Your task to perform on an android device: read, delete, or share a saved page in the chrome app Image 0: 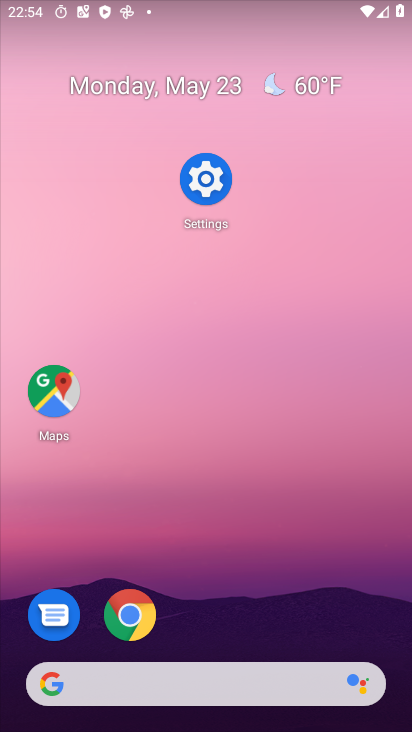
Step 0: drag from (270, 582) to (294, 124)
Your task to perform on an android device: read, delete, or share a saved page in the chrome app Image 1: 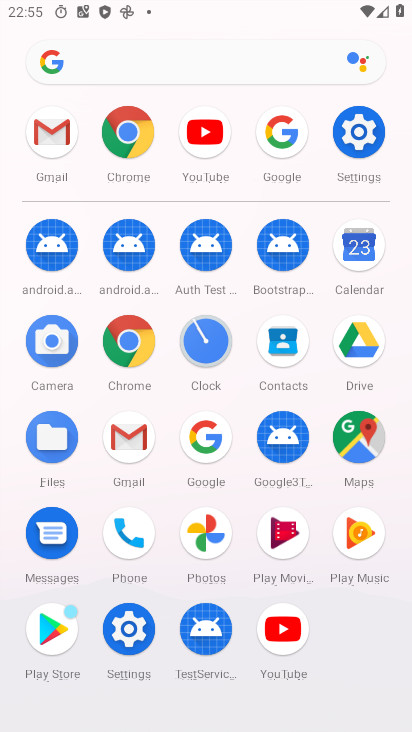
Step 1: click (123, 345)
Your task to perform on an android device: read, delete, or share a saved page in the chrome app Image 2: 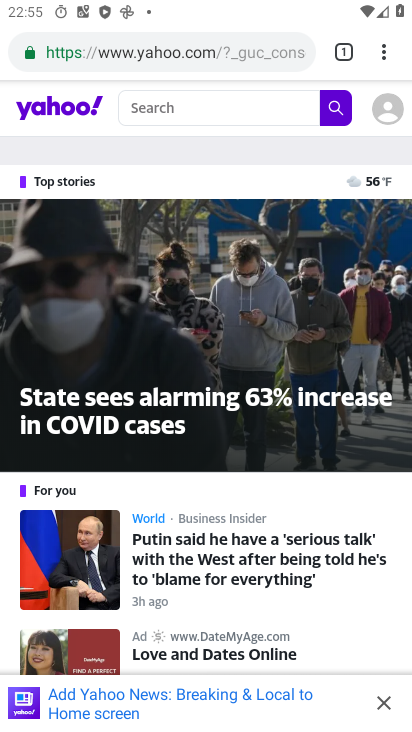
Step 2: click (378, 49)
Your task to perform on an android device: read, delete, or share a saved page in the chrome app Image 3: 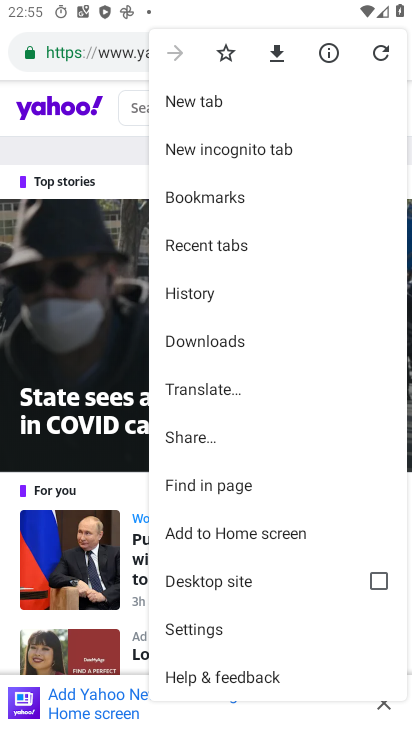
Step 3: click (216, 347)
Your task to perform on an android device: read, delete, or share a saved page in the chrome app Image 4: 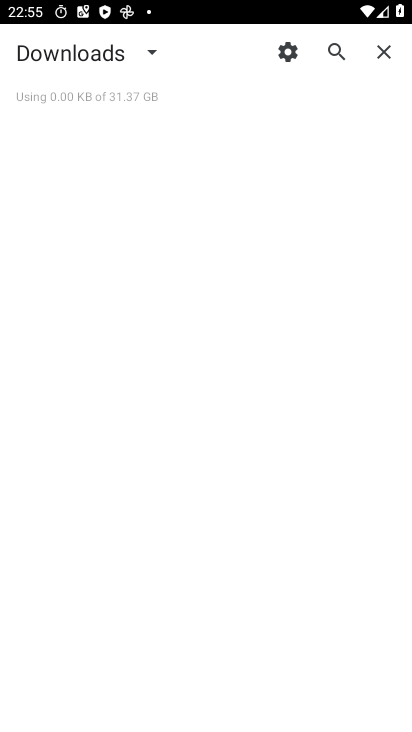
Step 4: task complete